Your task to perform on an android device: turn on javascript in the chrome app Image 0: 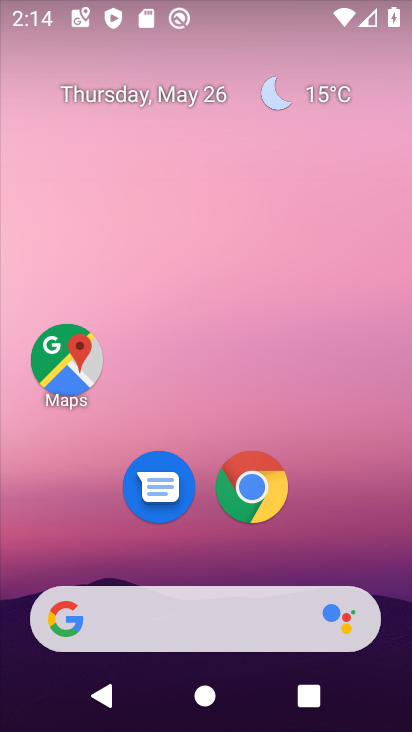
Step 0: click (248, 497)
Your task to perform on an android device: turn on javascript in the chrome app Image 1: 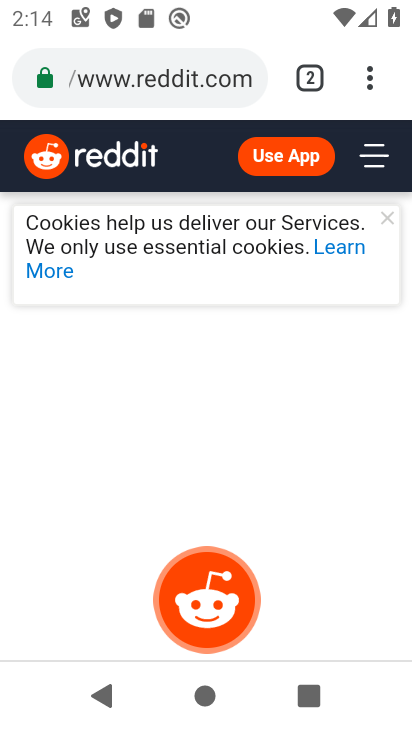
Step 1: click (368, 79)
Your task to perform on an android device: turn on javascript in the chrome app Image 2: 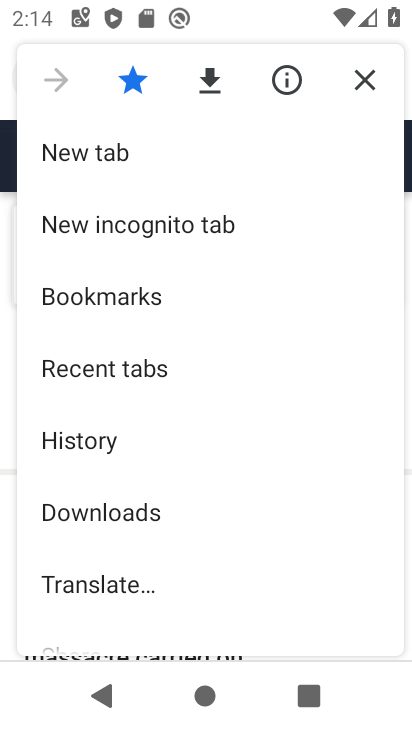
Step 2: drag from (208, 555) to (231, 254)
Your task to perform on an android device: turn on javascript in the chrome app Image 3: 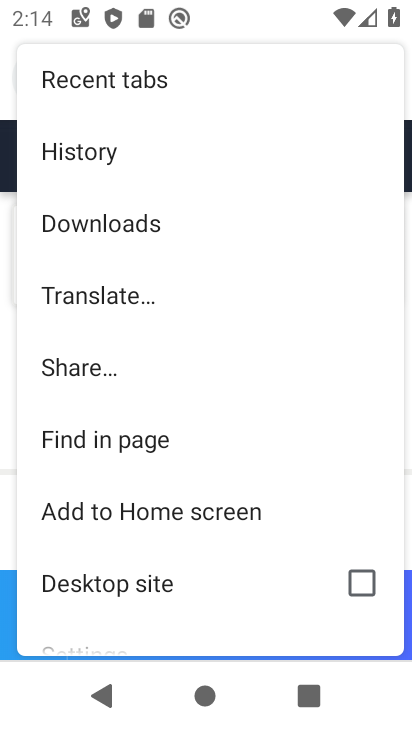
Step 3: drag from (203, 561) to (249, 283)
Your task to perform on an android device: turn on javascript in the chrome app Image 4: 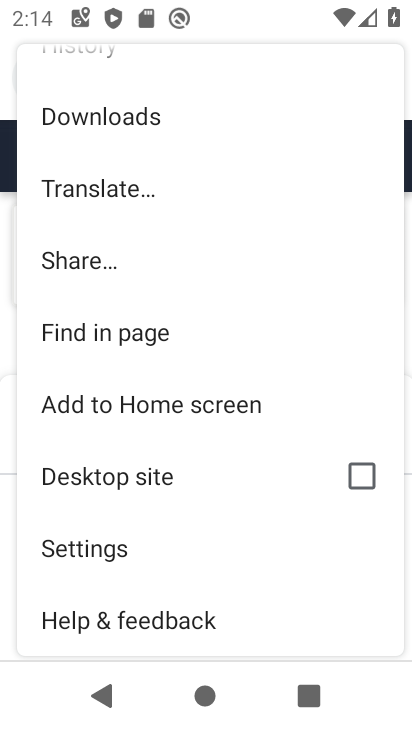
Step 4: click (105, 555)
Your task to perform on an android device: turn on javascript in the chrome app Image 5: 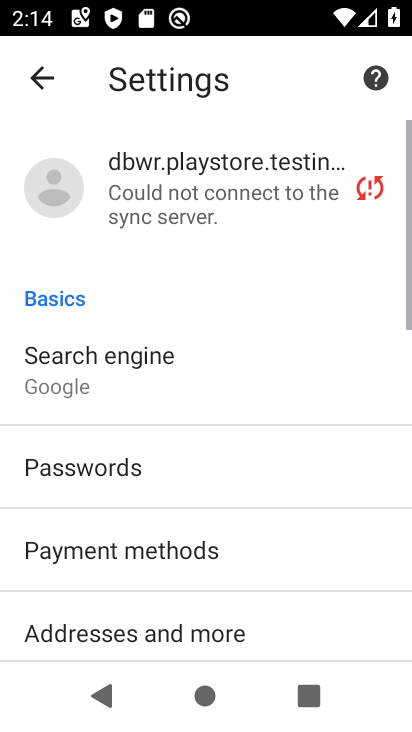
Step 5: drag from (166, 563) to (199, 345)
Your task to perform on an android device: turn on javascript in the chrome app Image 6: 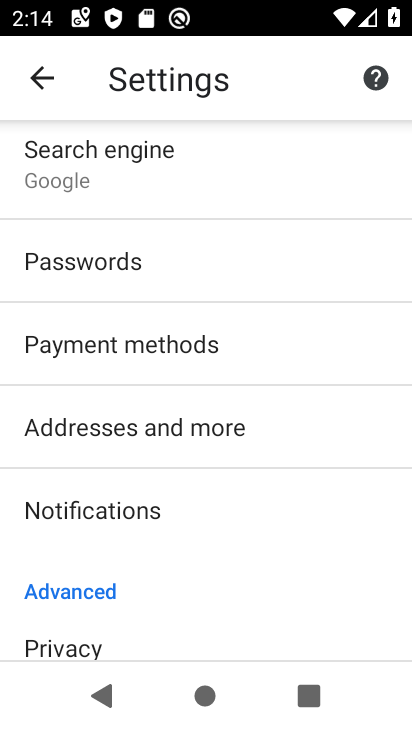
Step 6: drag from (199, 542) to (212, 355)
Your task to perform on an android device: turn on javascript in the chrome app Image 7: 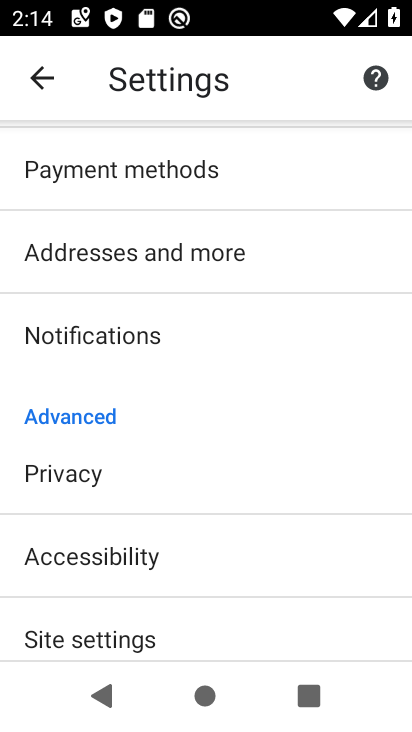
Step 7: drag from (206, 606) to (210, 404)
Your task to perform on an android device: turn on javascript in the chrome app Image 8: 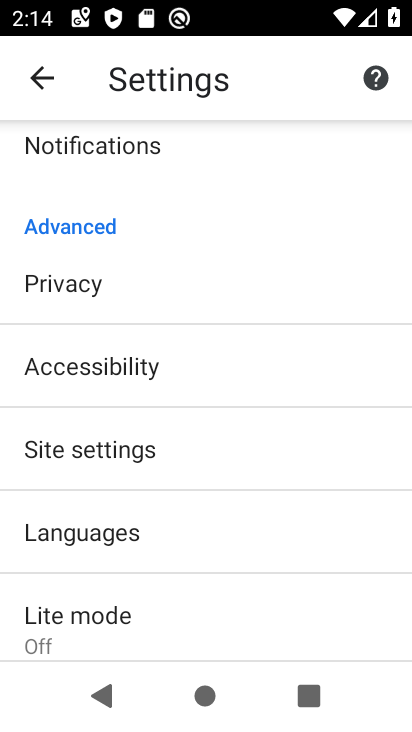
Step 8: click (140, 470)
Your task to perform on an android device: turn on javascript in the chrome app Image 9: 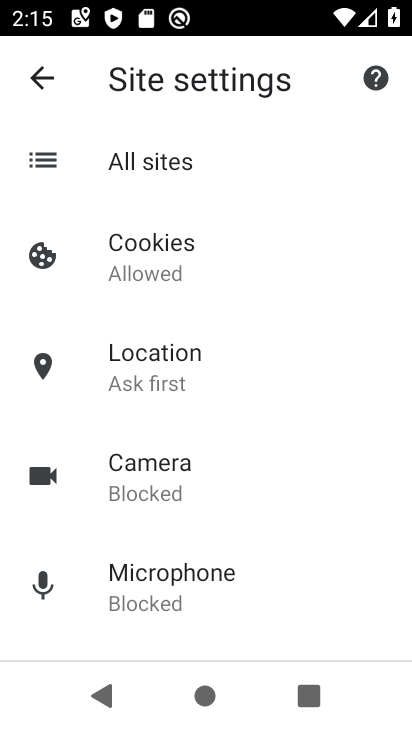
Step 9: drag from (223, 566) to (269, 368)
Your task to perform on an android device: turn on javascript in the chrome app Image 10: 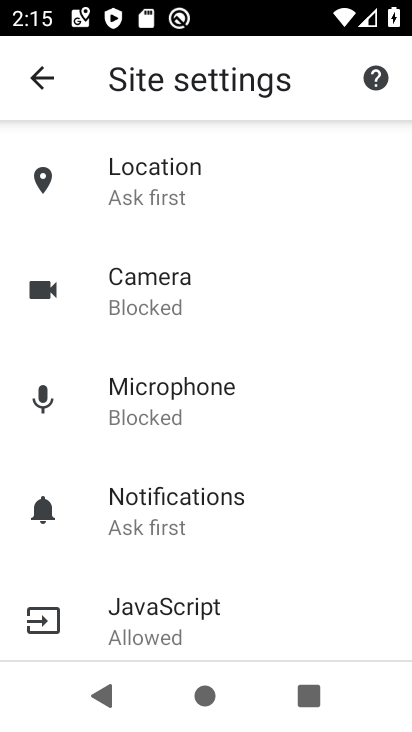
Step 10: click (173, 603)
Your task to perform on an android device: turn on javascript in the chrome app Image 11: 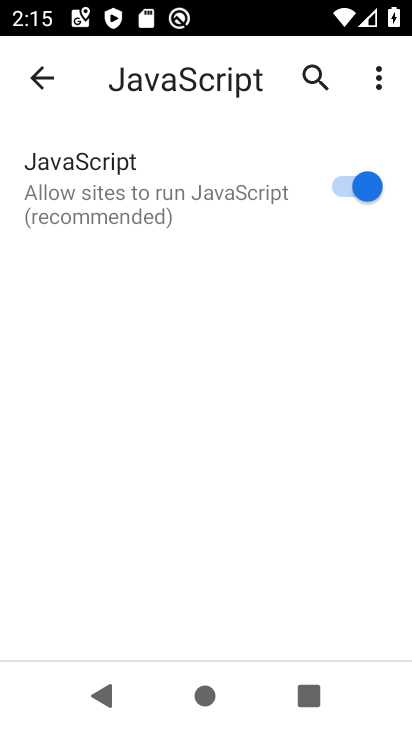
Step 11: task complete